Your task to perform on an android device: Open Google Chrome Image 0: 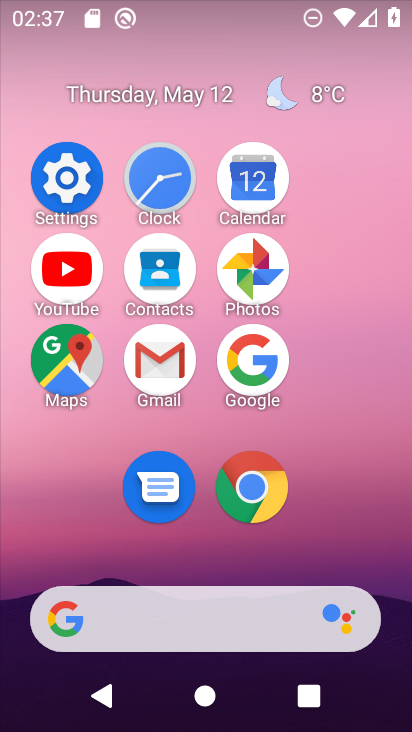
Step 0: click (260, 477)
Your task to perform on an android device: Open Google Chrome Image 1: 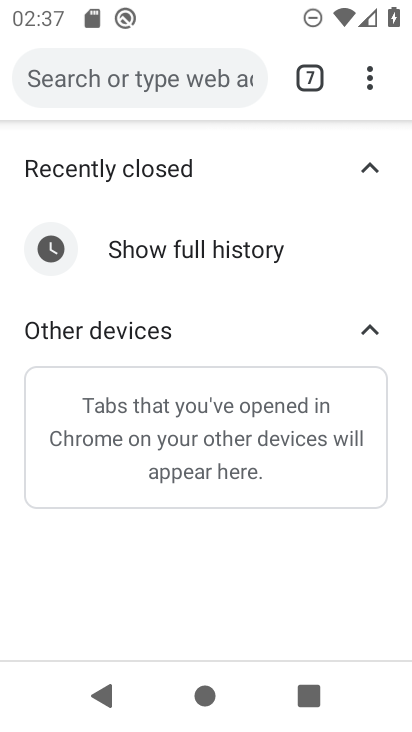
Step 1: task complete